Your task to perform on an android device: open a new tab in the chrome app Image 0: 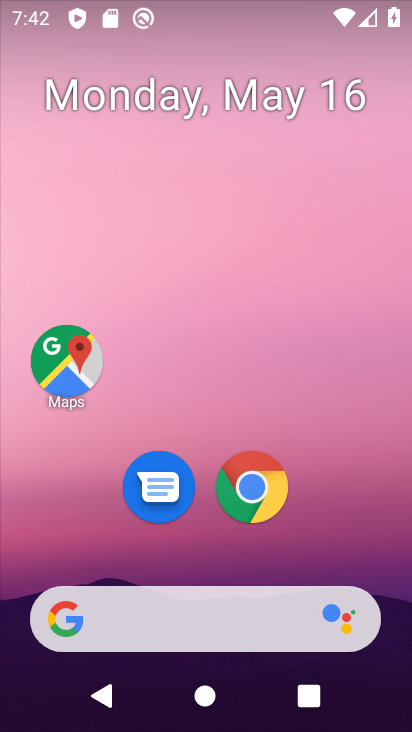
Step 0: click (247, 477)
Your task to perform on an android device: open a new tab in the chrome app Image 1: 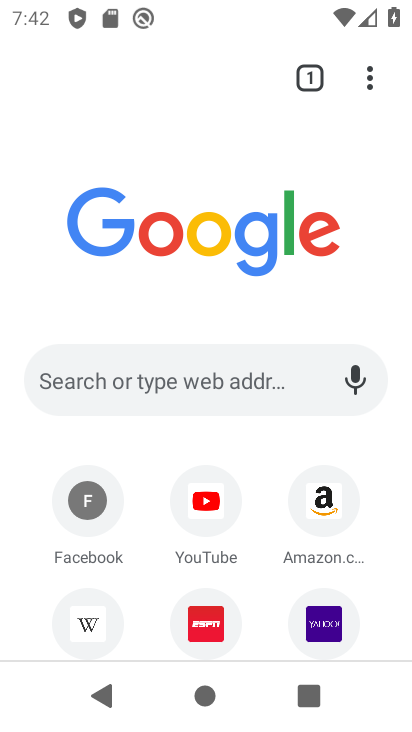
Step 1: click (364, 80)
Your task to perform on an android device: open a new tab in the chrome app Image 2: 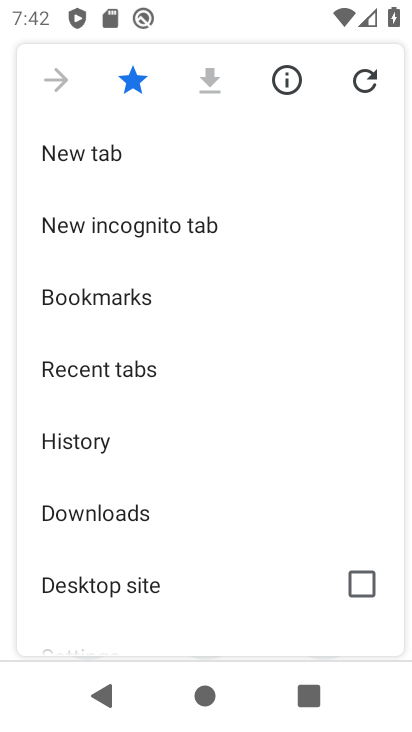
Step 2: click (268, 162)
Your task to perform on an android device: open a new tab in the chrome app Image 3: 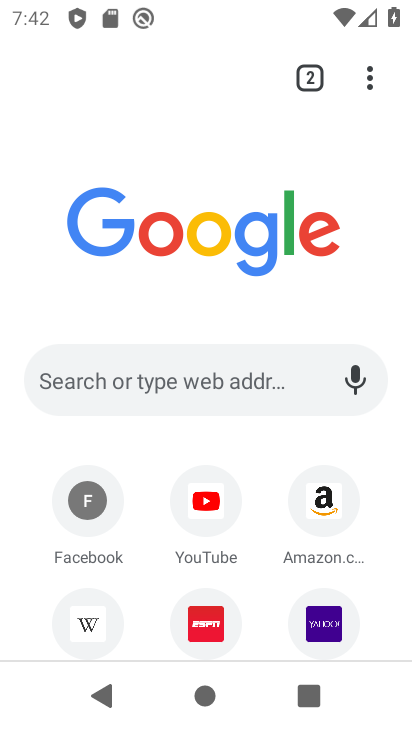
Step 3: task complete